Your task to perform on an android device: change the clock display to digital Image 0: 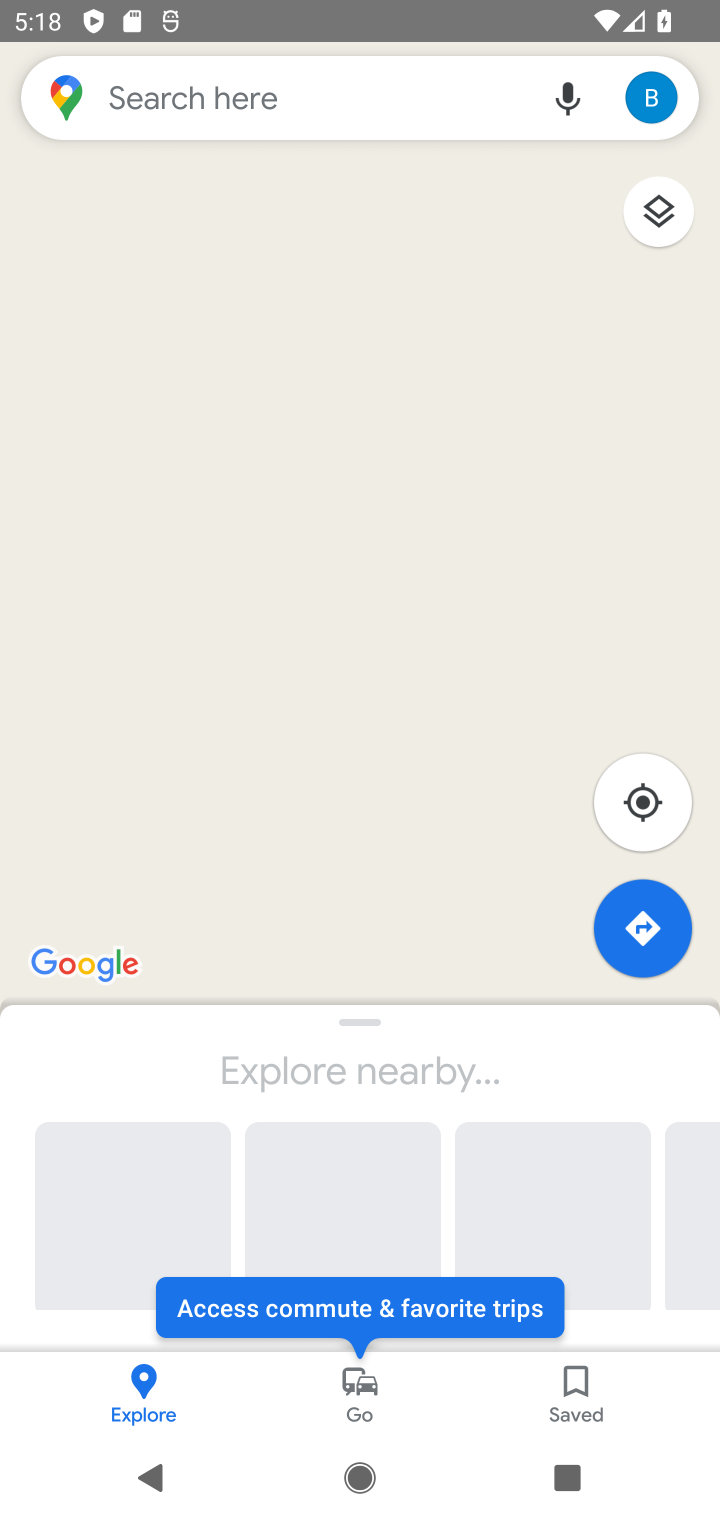
Step 0: press home button
Your task to perform on an android device: change the clock display to digital Image 1: 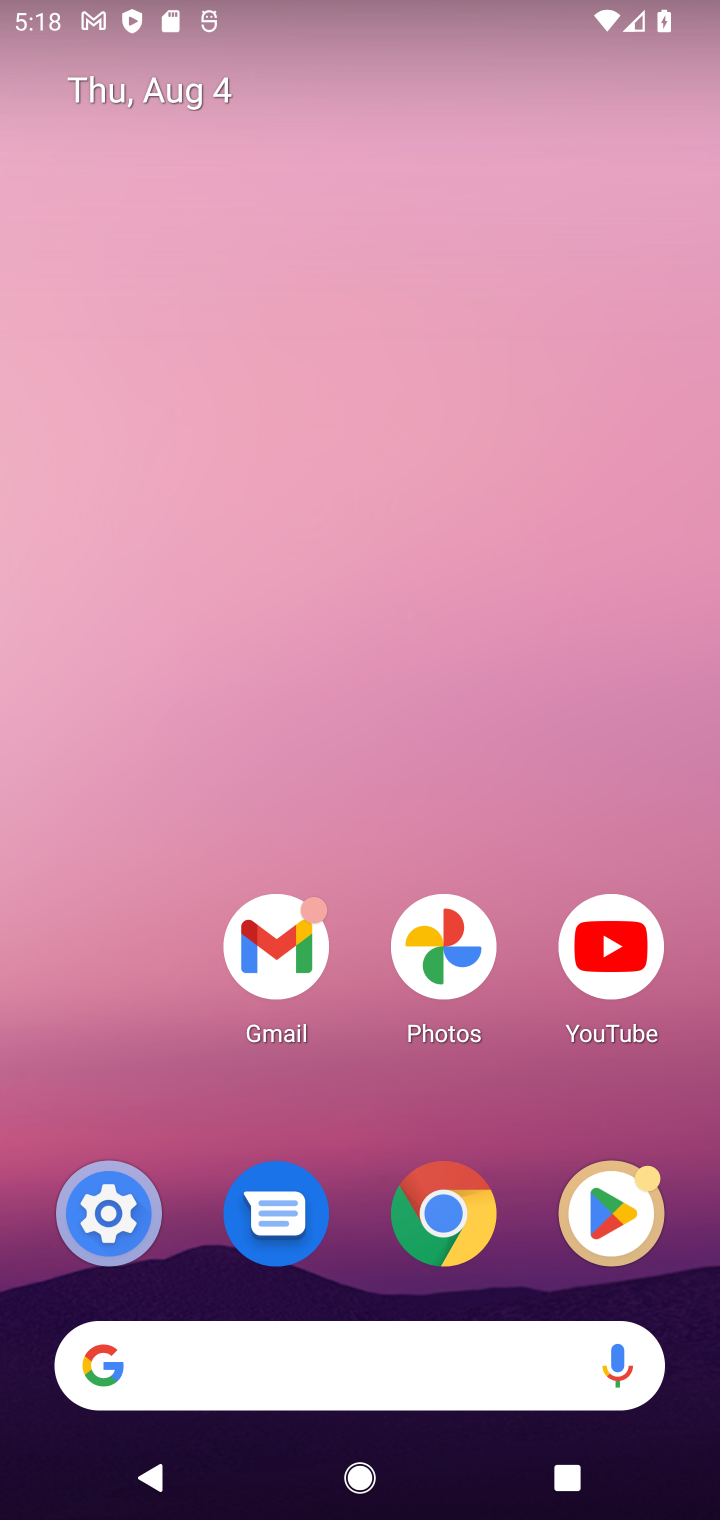
Step 1: drag from (436, 896) to (449, 14)
Your task to perform on an android device: change the clock display to digital Image 2: 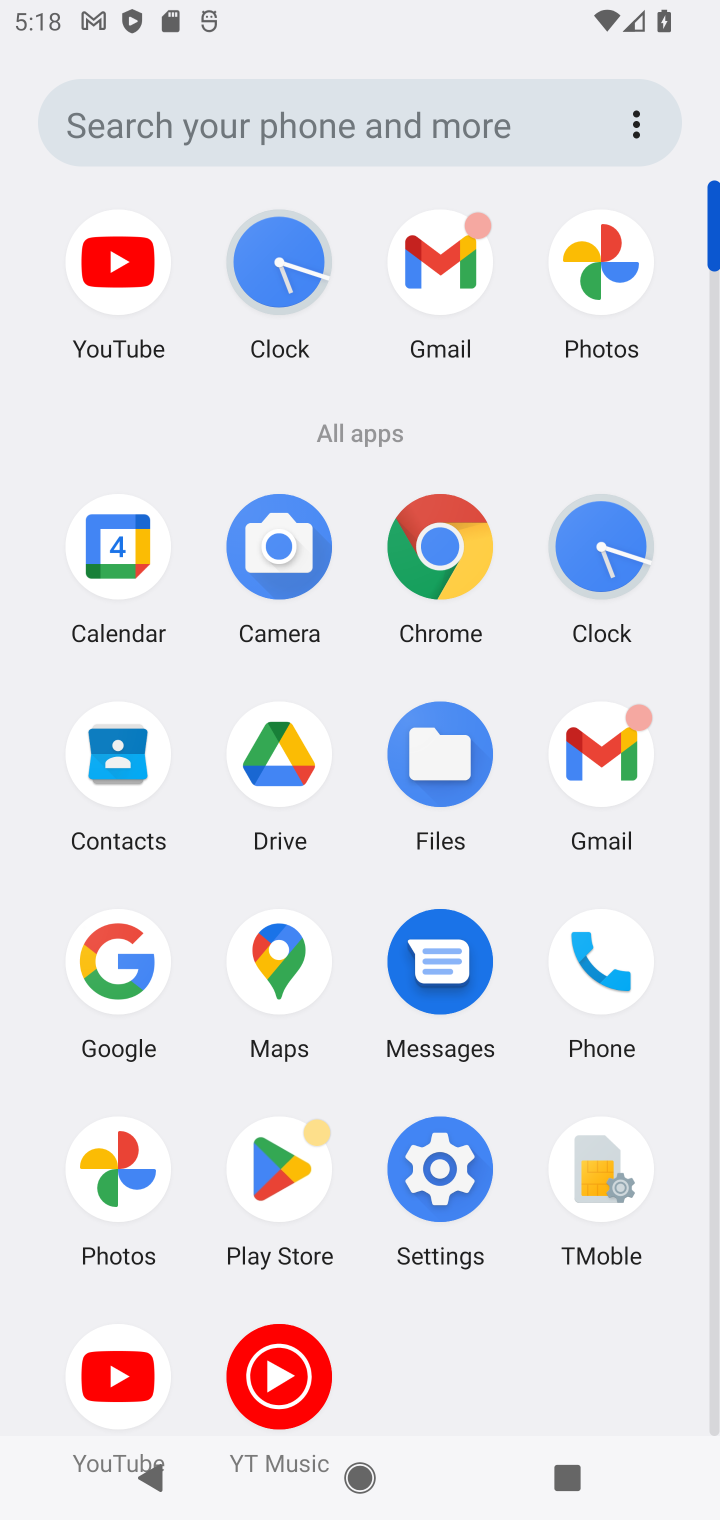
Step 2: click (608, 533)
Your task to perform on an android device: change the clock display to digital Image 3: 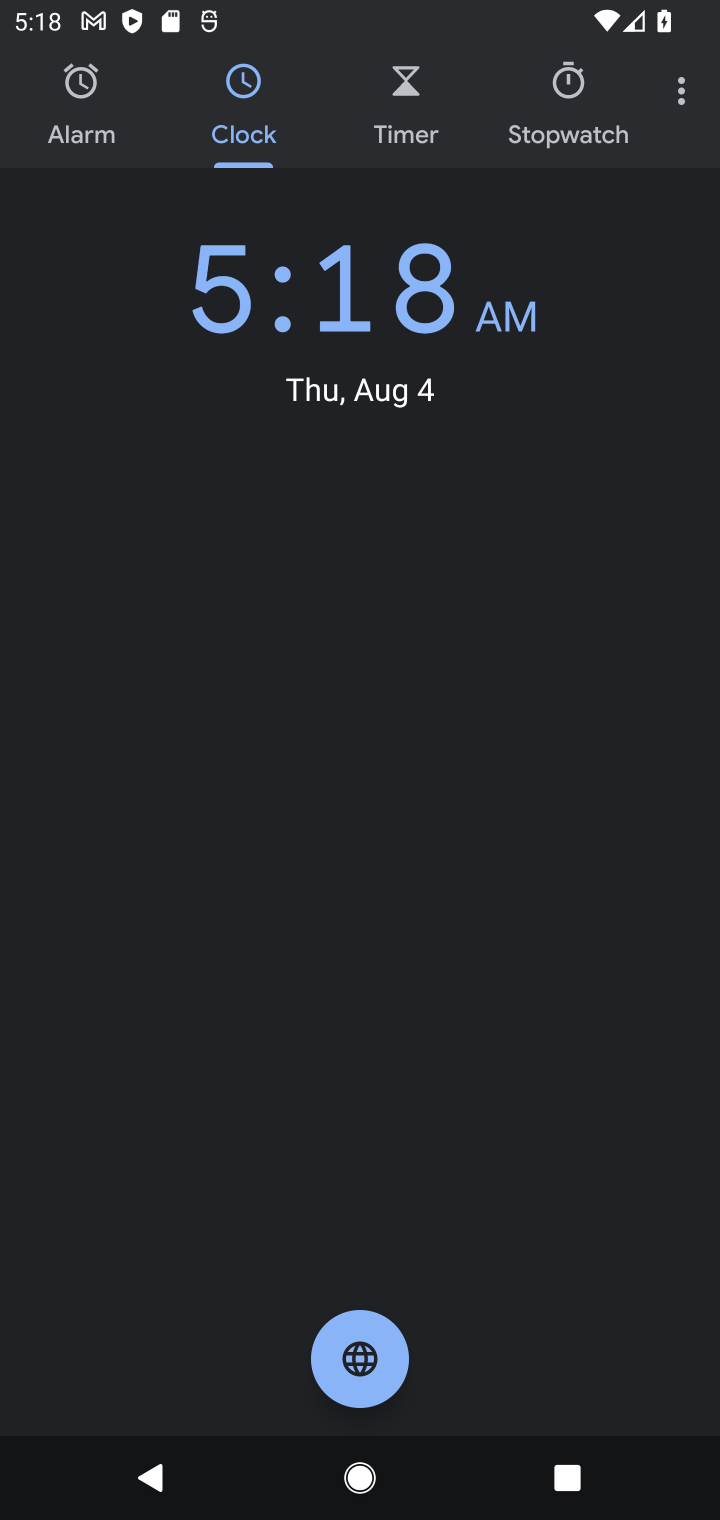
Step 3: click (679, 96)
Your task to perform on an android device: change the clock display to digital Image 4: 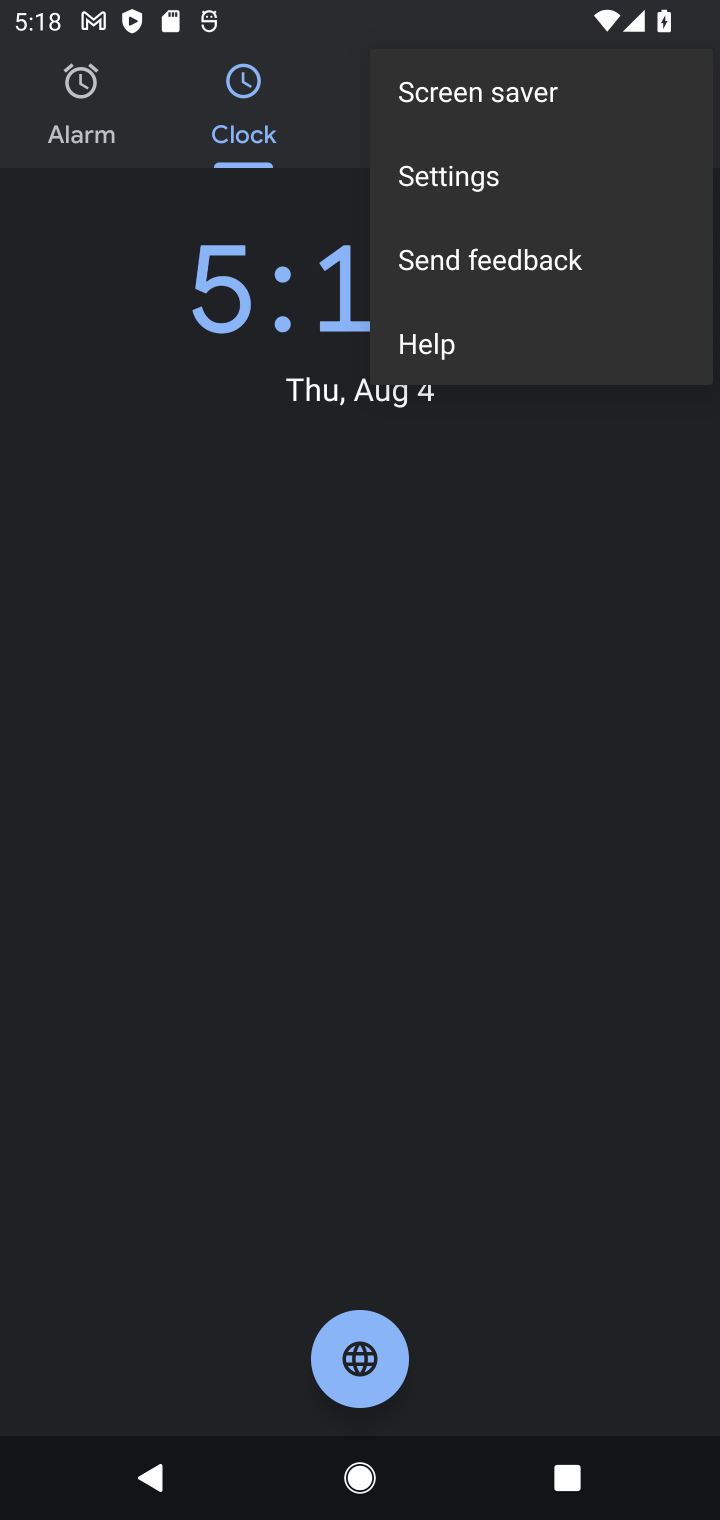
Step 4: click (510, 171)
Your task to perform on an android device: change the clock display to digital Image 5: 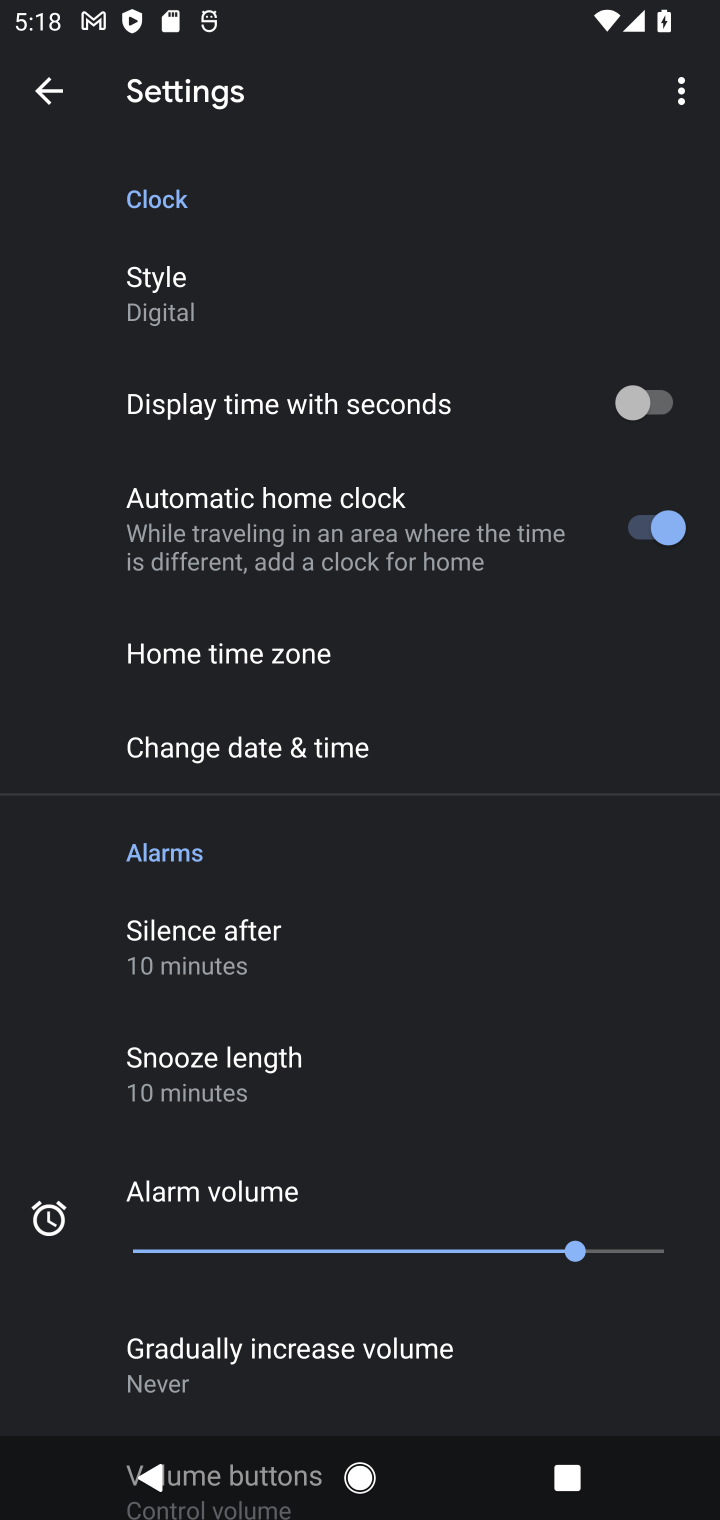
Step 5: task complete